Your task to perform on an android device: turn on showing notifications on the lock screen Image 0: 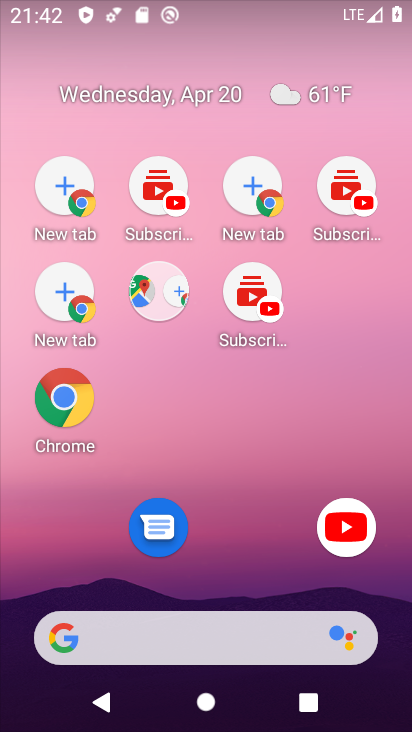
Step 0: drag from (273, 722) to (163, 148)
Your task to perform on an android device: turn on showing notifications on the lock screen Image 1: 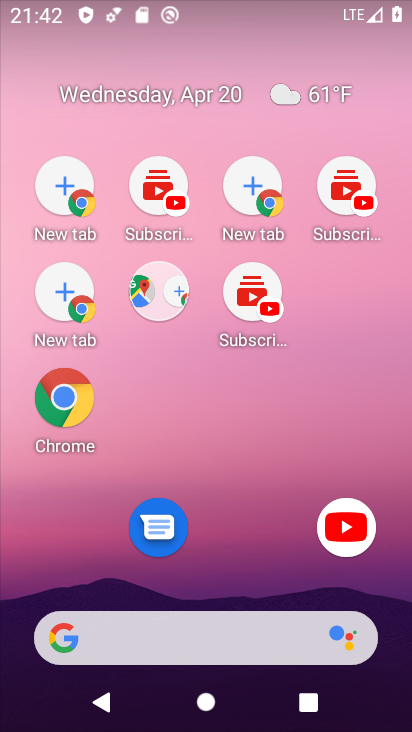
Step 1: drag from (273, 625) to (93, 207)
Your task to perform on an android device: turn on showing notifications on the lock screen Image 2: 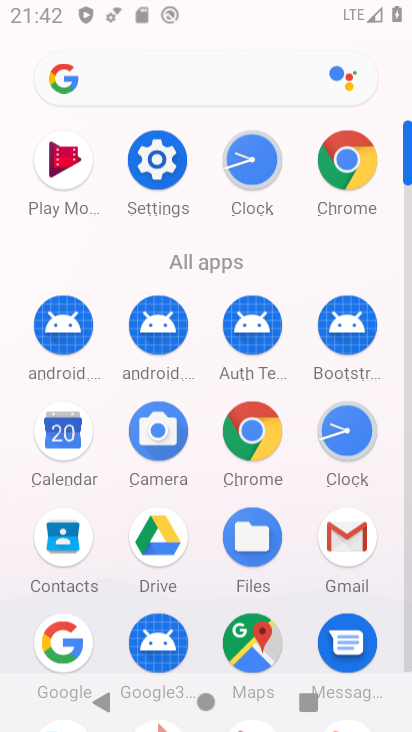
Step 2: drag from (274, 626) to (169, 199)
Your task to perform on an android device: turn on showing notifications on the lock screen Image 3: 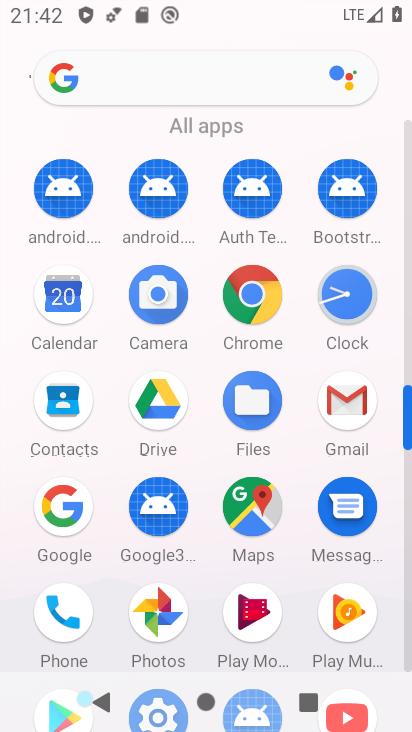
Step 3: drag from (399, 593) to (363, 455)
Your task to perform on an android device: turn on showing notifications on the lock screen Image 4: 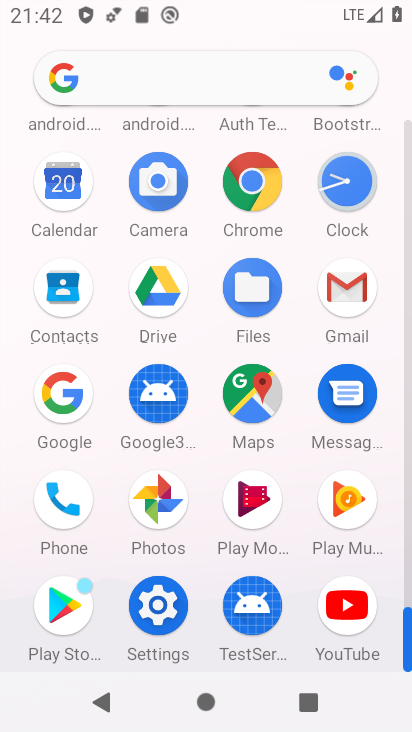
Step 4: click (155, 614)
Your task to perform on an android device: turn on showing notifications on the lock screen Image 5: 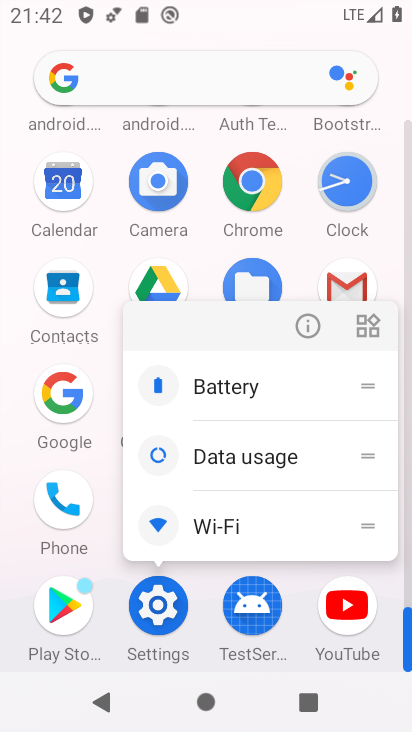
Step 5: click (164, 594)
Your task to perform on an android device: turn on showing notifications on the lock screen Image 6: 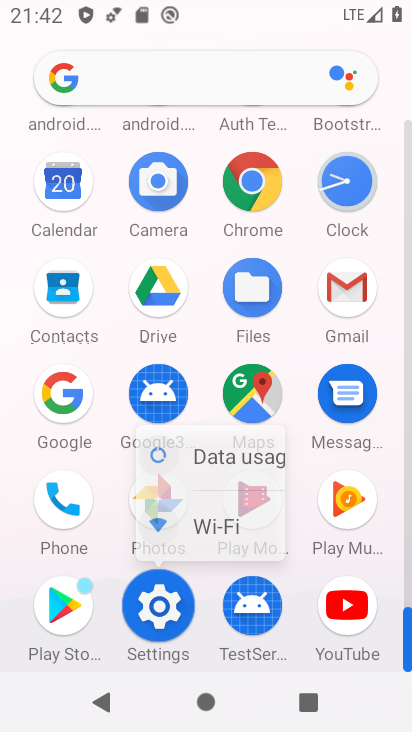
Step 6: click (167, 607)
Your task to perform on an android device: turn on showing notifications on the lock screen Image 7: 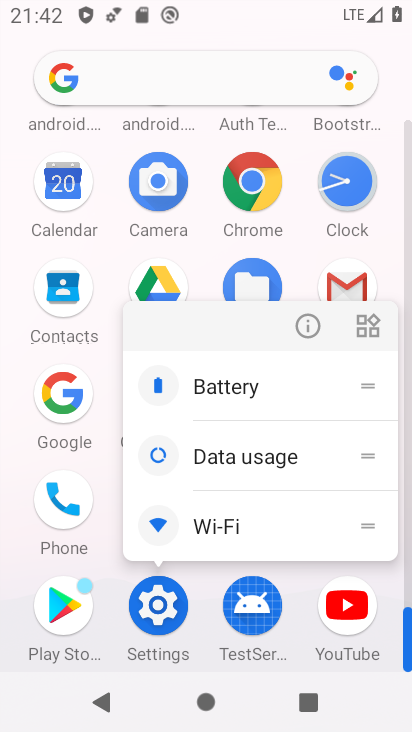
Step 7: click (166, 606)
Your task to perform on an android device: turn on showing notifications on the lock screen Image 8: 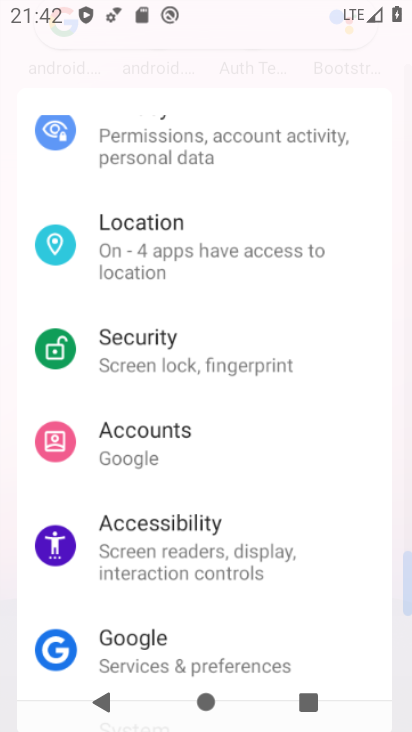
Step 8: click (166, 606)
Your task to perform on an android device: turn on showing notifications on the lock screen Image 9: 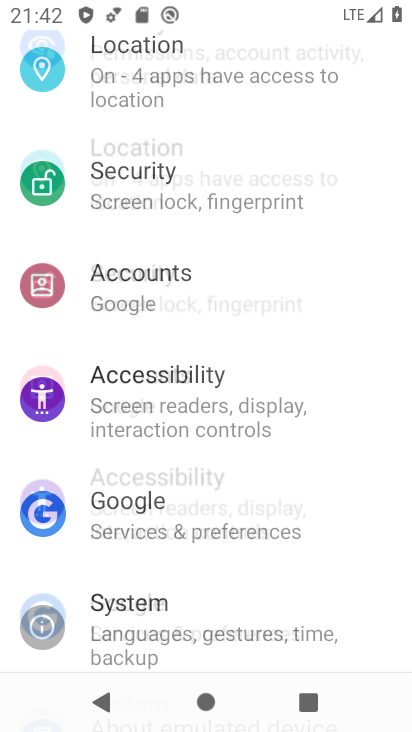
Step 9: click (163, 604)
Your task to perform on an android device: turn on showing notifications on the lock screen Image 10: 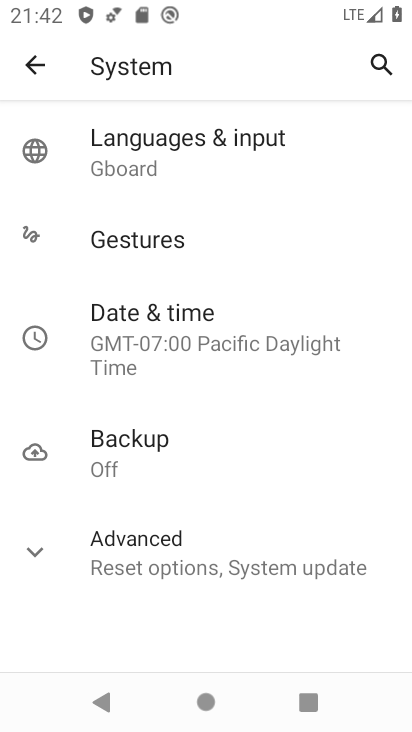
Step 10: click (27, 63)
Your task to perform on an android device: turn on showing notifications on the lock screen Image 11: 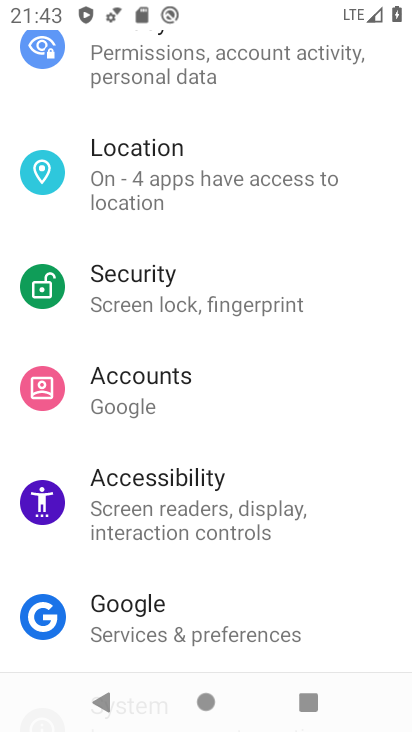
Step 11: drag from (141, 222) to (263, 621)
Your task to perform on an android device: turn on showing notifications on the lock screen Image 12: 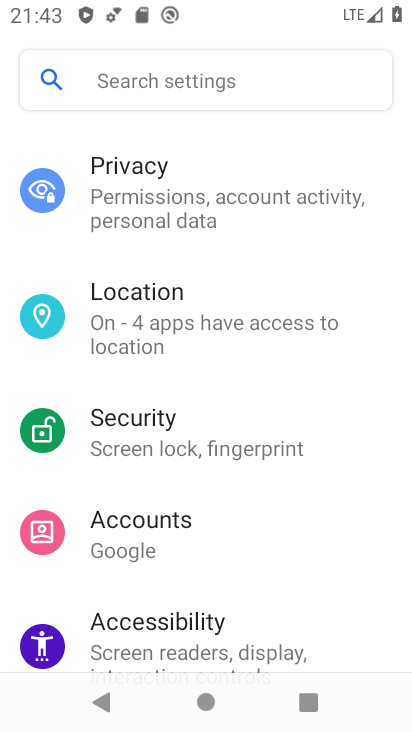
Step 12: drag from (207, 424) to (206, 598)
Your task to perform on an android device: turn on showing notifications on the lock screen Image 13: 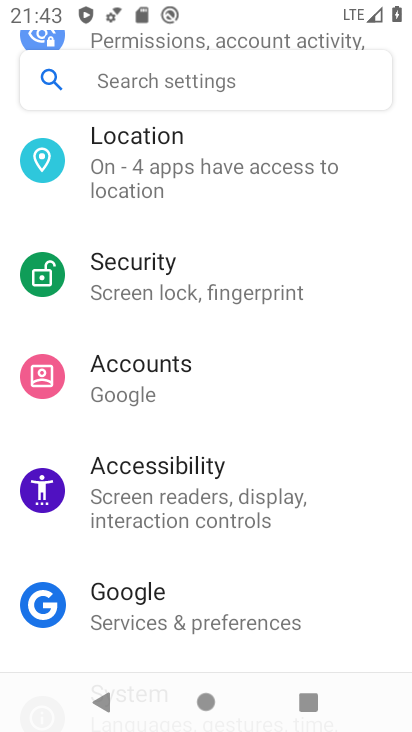
Step 13: drag from (192, 504) to (247, 547)
Your task to perform on an android device: turn on showing notifications on the lock screen Image 14: 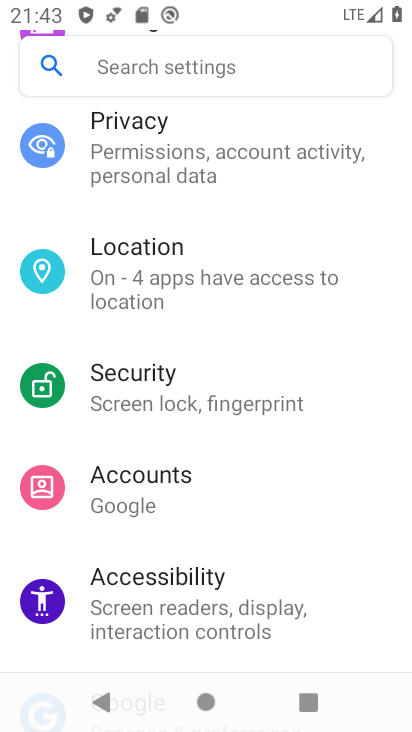
Step 14: drag from (208, 159) to (251, 440)
Your task to perform on an android device: turn on showing notifications on the lock screen Image 15: 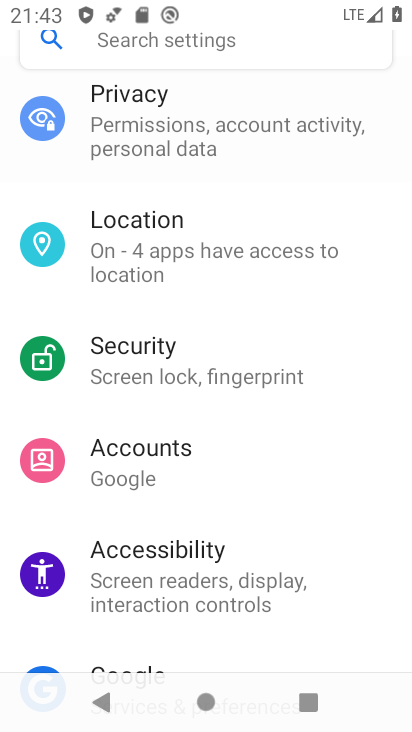
Step 15: drag from (235, 213) to (273, 566)
Your task to perform on an android device: turn on showing notifications on the lock screen Image 16: 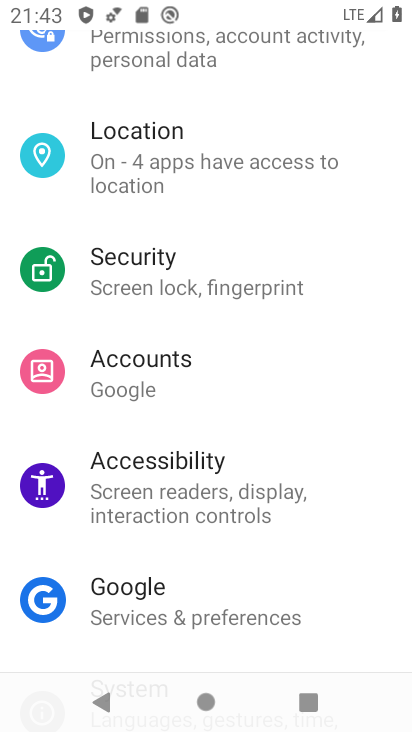
Step 16: drag from (172, 164) to (181, 665)
Your task to perform on an android device: turn on showing notifications on the lock screen Image 17: 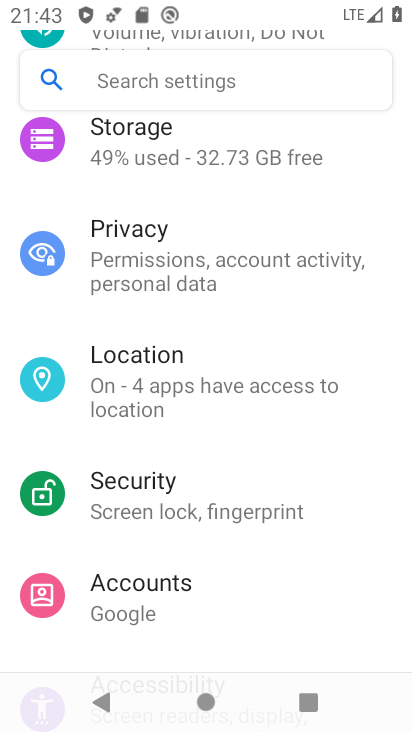
Step 17: drag from (187, 223) to (246, 650)
Your task to perform on an android device: turn on showing notifications on the lock screen Image 18: 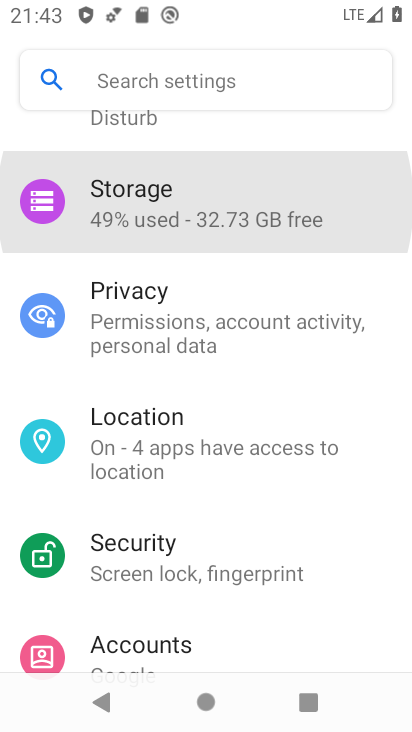
Step 18: drag from (246, 517) to (270, 679)
Your task to perform on an android device: turn on showing notifications on the lock screen Image 19: 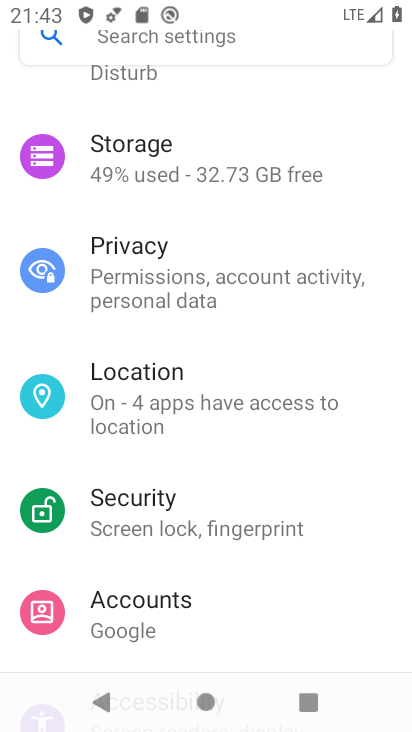
Step 19: drag from (181, 589) to (286, 621)
Your task to perform on an android device: turn on showing notifications on the lock screen Image 20: 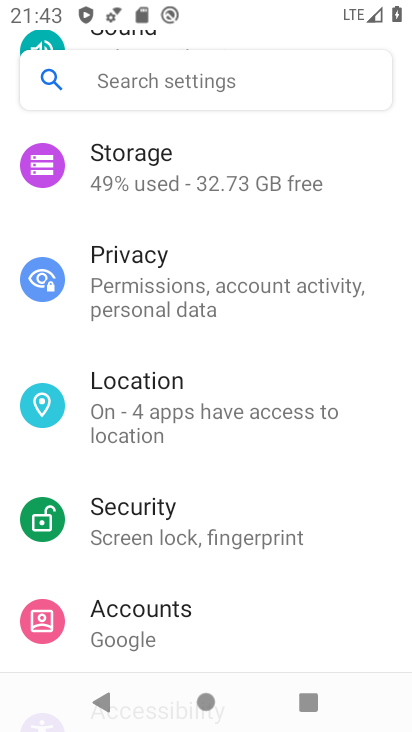
Step 20: drag from (299, 360) to (323, 536)
Your task to perform on an android device: turn on showing notifications on the lock screen Image 21: 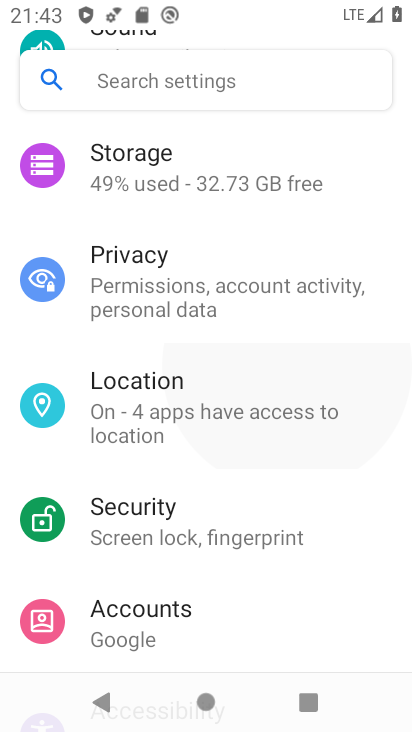
Step 21: drag from (280, 274) to (366, 531)
Your task to perform on an android device: turn on showing notifications on the lock screen Image 22: 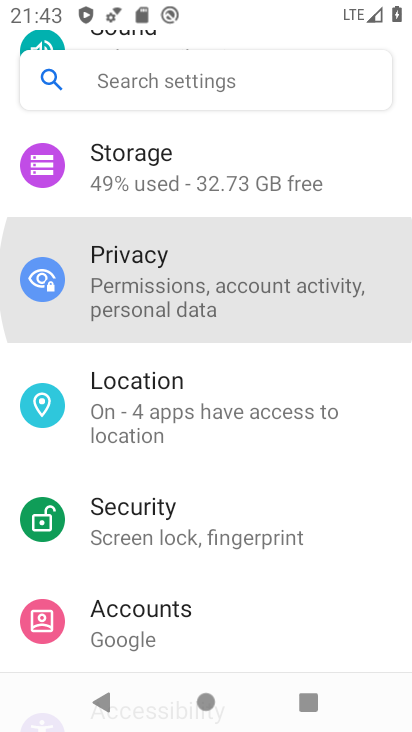
Step 22: drag from (260, 249) to (292, 444)
Your task to perform on an android device: turn on showing notifications on the lock screen Image 23: 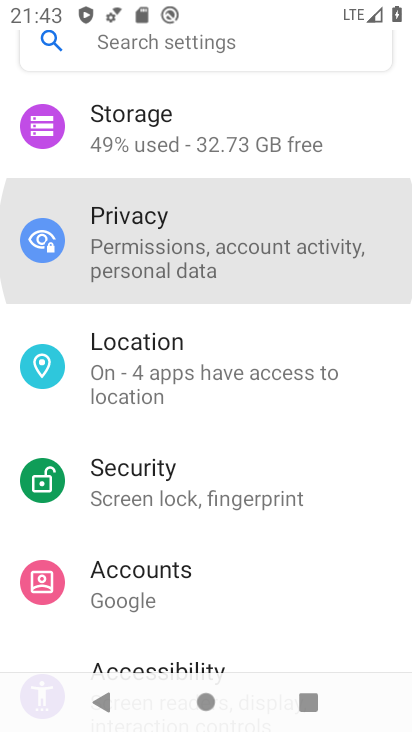
Step 23: drag from (212, 343) to (212, 573)
Your task to perform on an android device: turn on showing notifications on the lock screen Image 24: 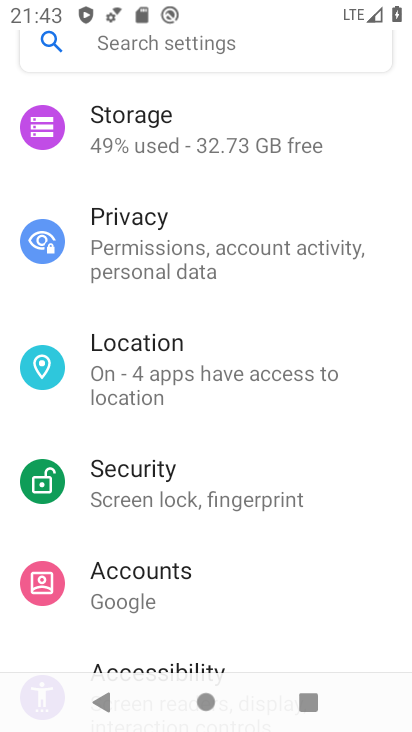
Step 24: drag from (163, 214) to (216, 614)
Your task to perform on an android device: turn on showing notifications on the lock screen Image 25: 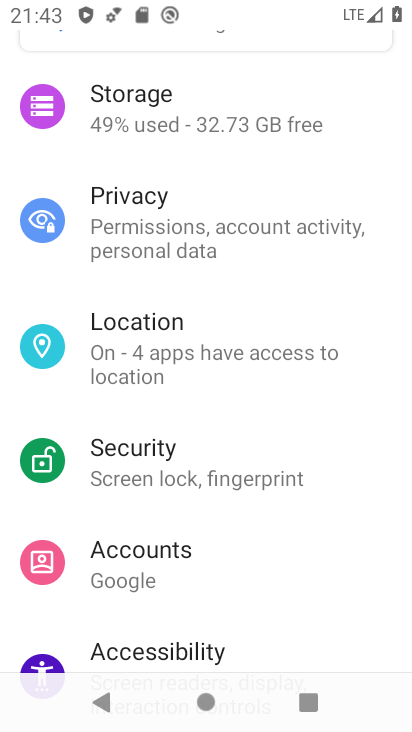
Step 25: drag from (233, 397) to (233, 581)
Your task to perform on an android device: turn on showing notifications on the lock screen Image 26: 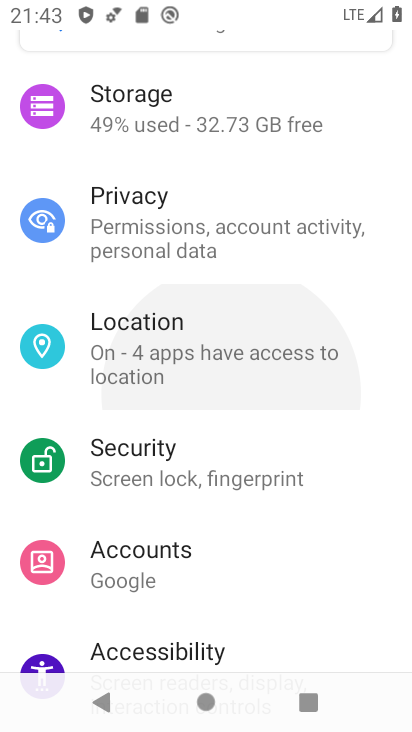
Step 26: drag from (148, 346) to (193, 646)
Your task to perform on an android device: turn on showing notifications on the lock screen Image 27: 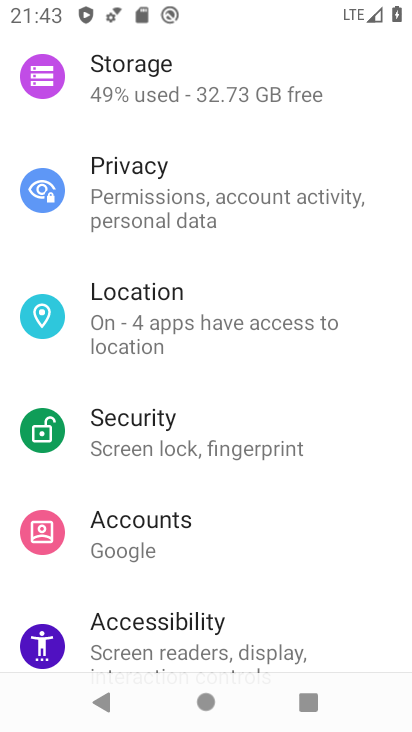
Step 27: drag from (215, 130) to (326, 549)
Your task to perform on an android device: turn on showing notifications on the lock screen Image 28: 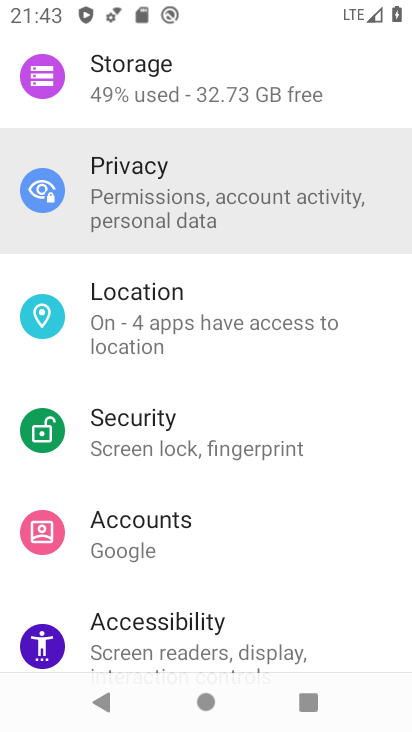
Step 28: drag from (192, 236) to (171, 609)
Your task to perform on an android device: turn on showing notifications on the lock screen Image 29: 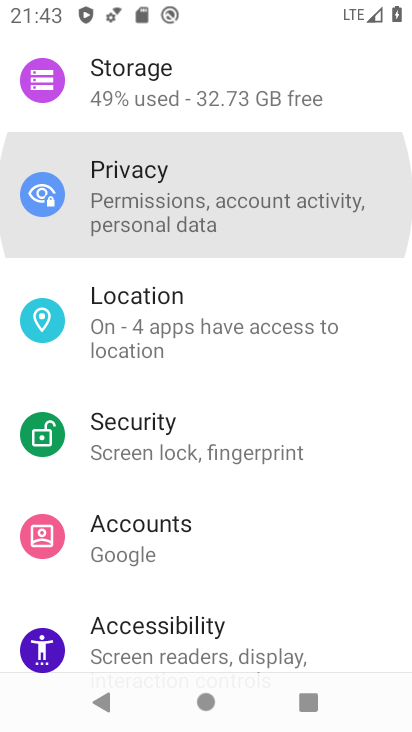
Step 29: drag from (72, 190) to (129, 724)
Your task to perform on an android device: turn on showing notifications on the lock screen Image 30: 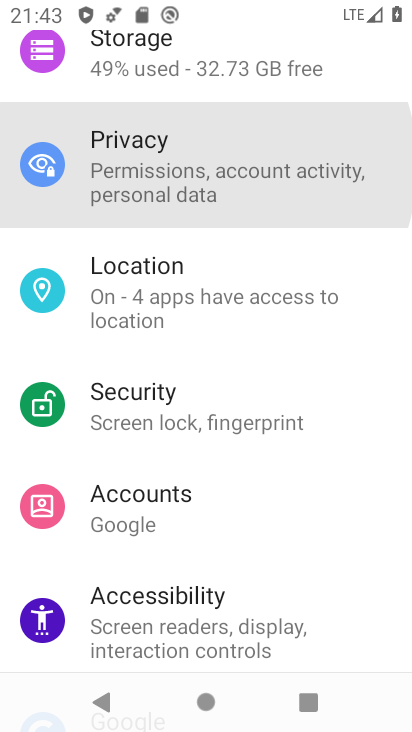
Step 30: drag from (134, 258) to (246, 667)
Your task to perform on an android device: turn on showing notifications on the lock screen Image 31: 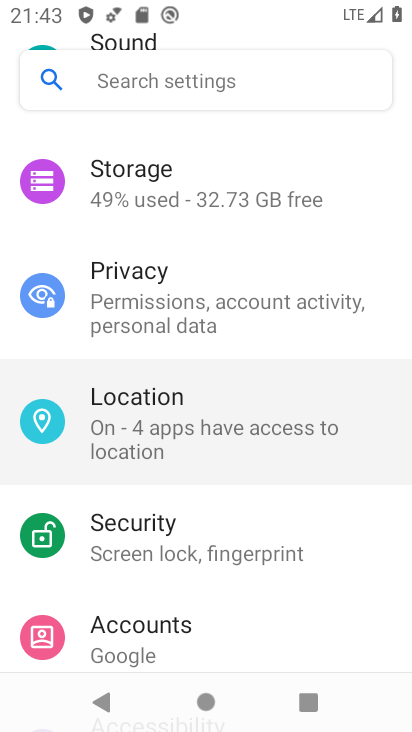
Step 31: drag from (222, 333) to (284, 596)
Your task to perform on an android device: turn on showing notifications on the lock screen Image 32: 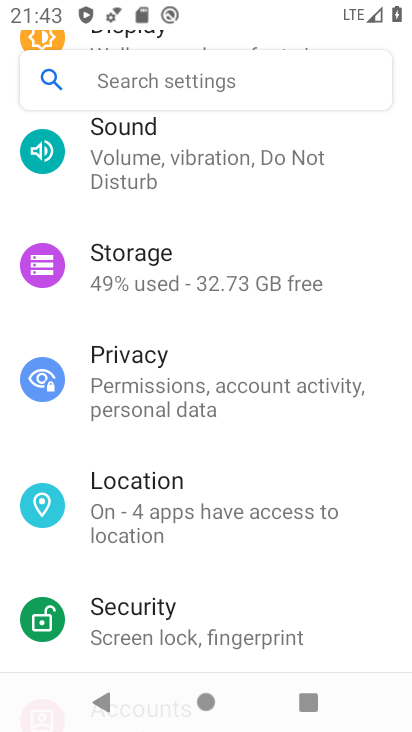
Step 32: drag from (167, 175) to (336, 610)
Your task to perform on an android device: turn on showing notifications on the lock screen Image 33: 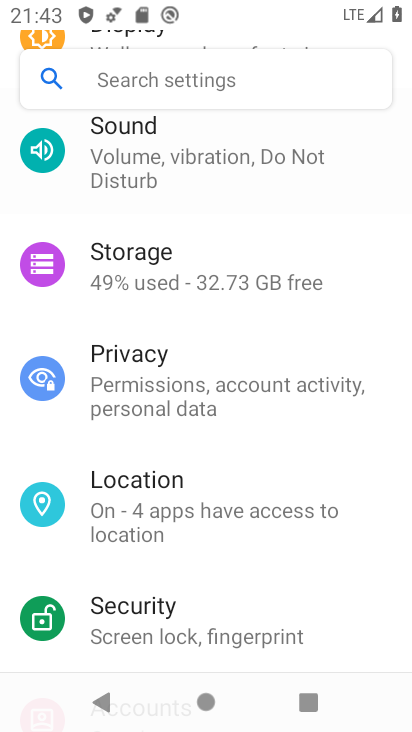
Step 33: drag from (158, 178) to (185, 666)
Your task to perform on an android device: turn on showing notifications on the lock screen Image 34: 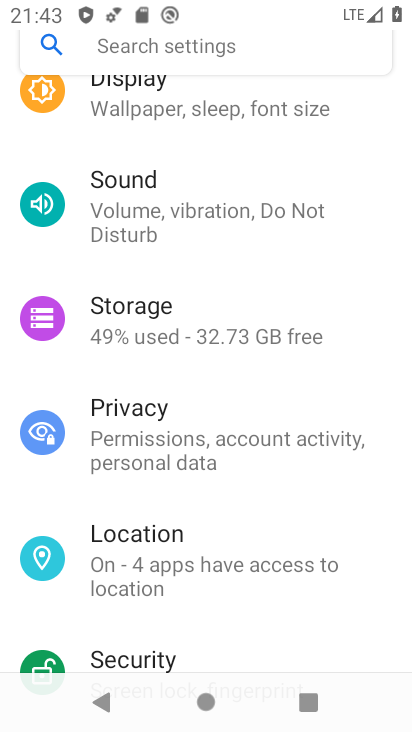
Step 34: drag from (110, 295) to (197, 633)
Your task to perform on an android device: turn on showing notifications on the lock screen Image 35: 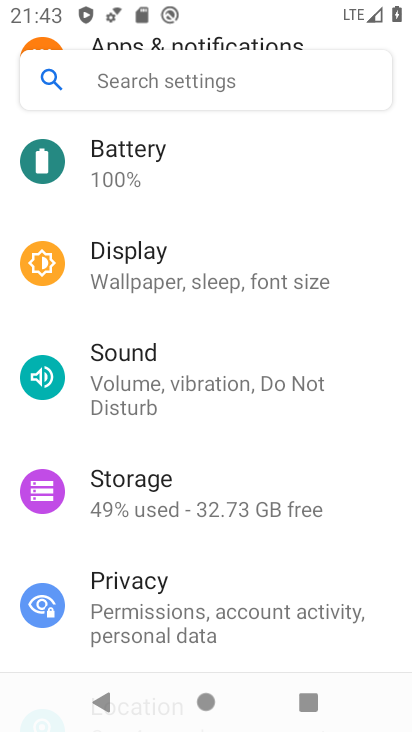
Step 35: drag from (166, 230) to (215, 692)
Your task to perform on an android device: turn on showing notifications on the lock screen Image 36: 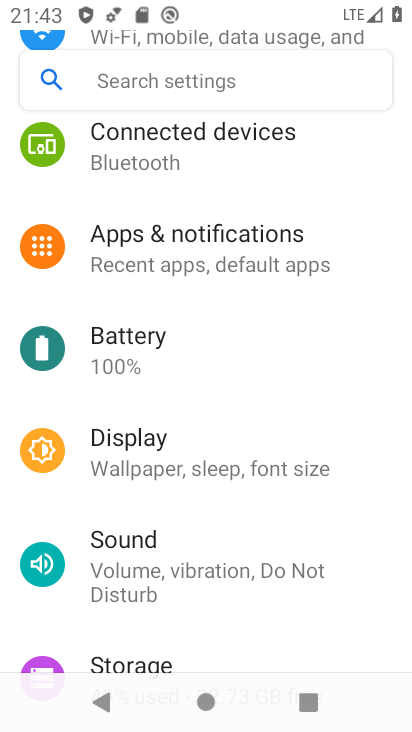
Step 36: drag from (123, 330) to (163, 650)
Your task to perform on an android device: turn on showing notifications on the lock screen Image 37: 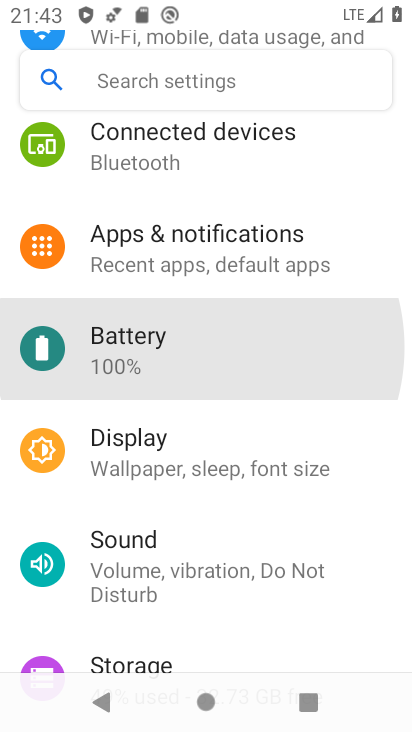
Step 37: drag from (117, 258) to (210, 661)
Your task to perform on an android device: turn on showing notifications on the lock screen Image 38: 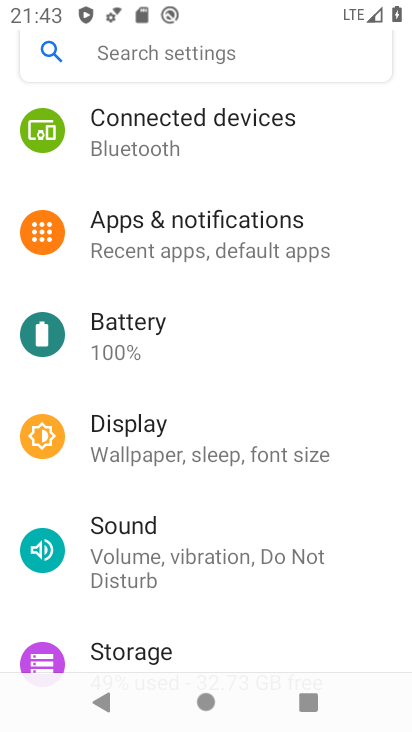
Step 38: click (218, 240)
Your task to perform on an android device: turn on showing notifications on the lock screen Image 39: 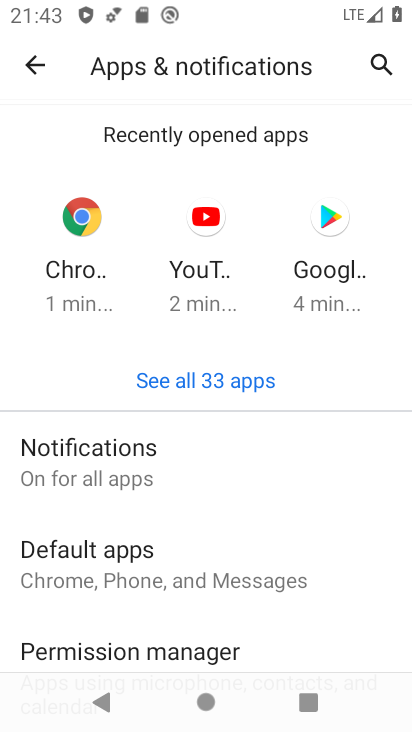
Step 39: click (94, 480)
Your task to perform on an android device: turn on showing notifications on the lock screen Image 40: 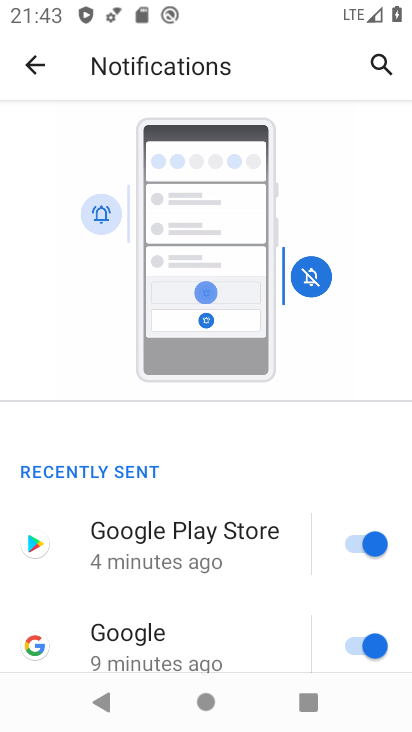
Step 40: drag from (195, 558) to (181, 350)
Your task to perform on an android device: turn on showing notifications on the lock screen Image 41: 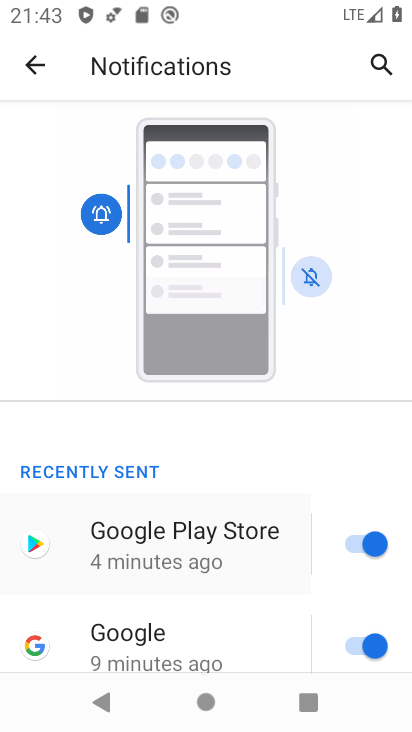
Step 41: drag from (208, 396) to (208, 192)
Your task to perform on an android device: turn on showing notifications on the lock screen Image 42: 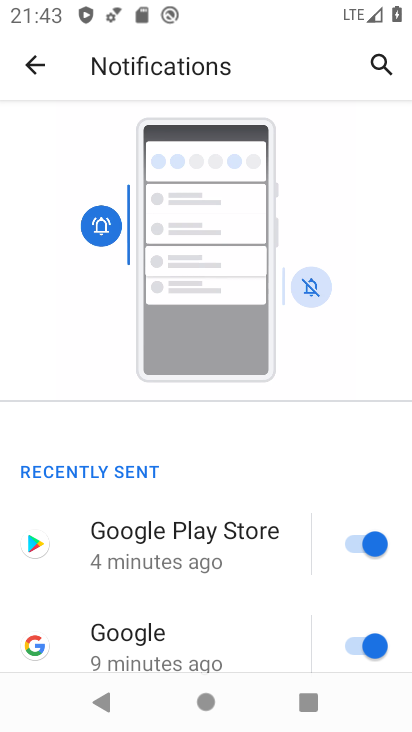
Step 42: drag from (185, 366) to (168, 242)
Your task to perform on an android device: turn on showing notifications on the lock screen Image 43: 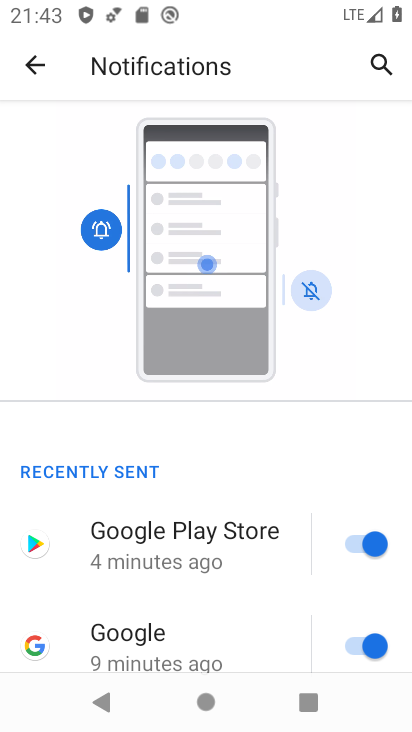
Step 43: drag from (180, 524) to (148, 313)
Your task to perform on an android device: turn on showing notifications on the lock screen Image 44: 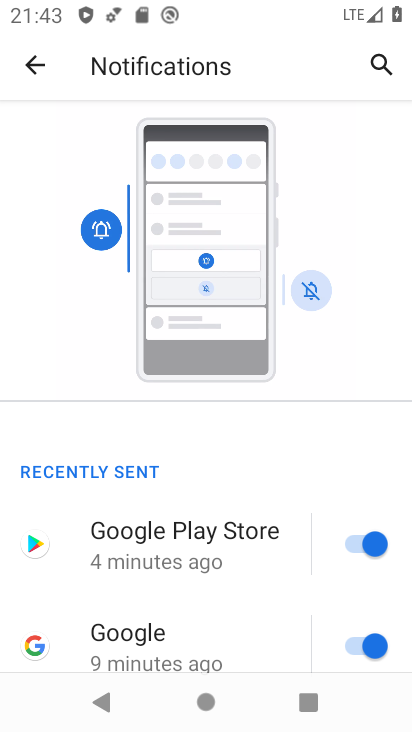
Step 44: drag from (123, 201) to (133, 154)
Your task to perform on an android device: turn on showing notifications on the lock screen Image 45: 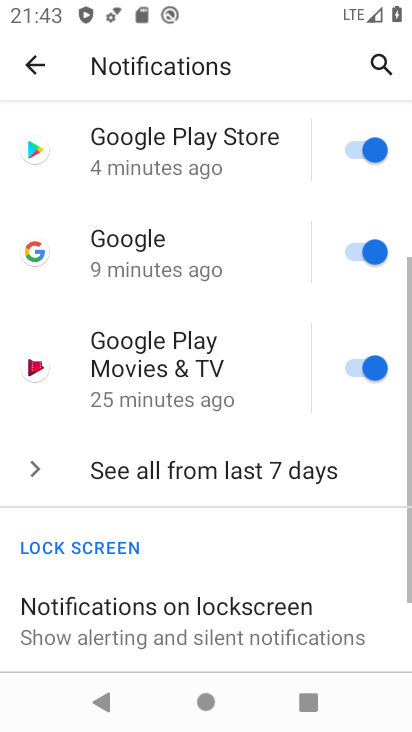
Step 45: drag from (162, 533) to (179, 202)
Your task to perform on an android device: turn on showing notifications on the lock screen Image 46: 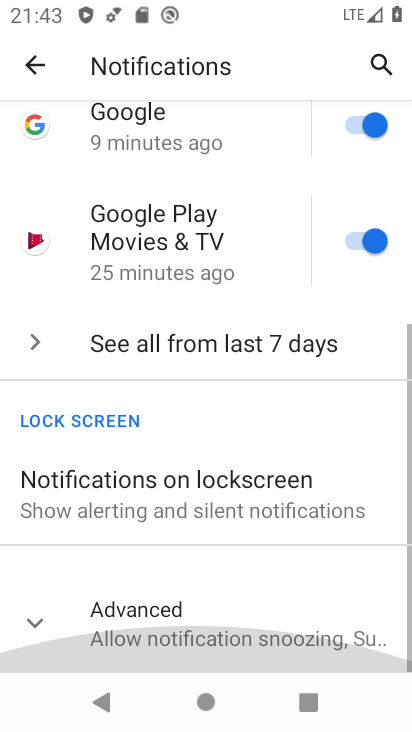
Step 46: drag from (199, 289) to (199, 107)
Your task to perform on an android device: turn on showing notifications on the lock screen Image 47: 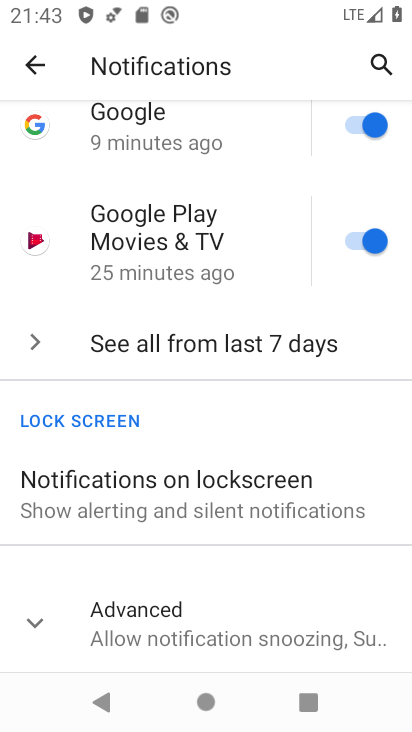
Step 47: click (143, 487)
Your task to perform on an android device: turn on showing notifications on the lock screen Image 48: 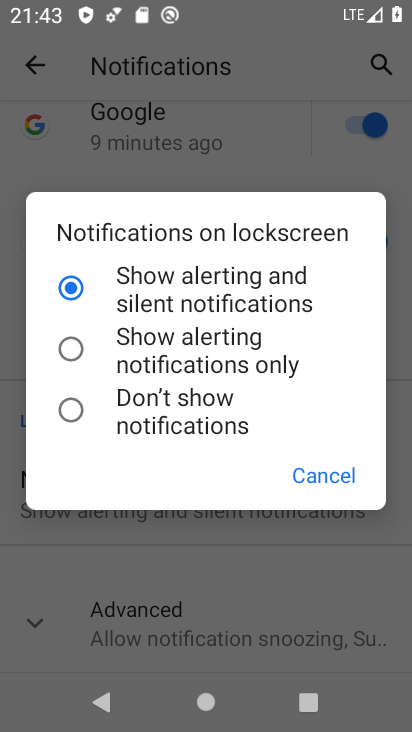
Step 48: task complete